Your task to perform on an android device: empty trash in the gmail app Image 0: 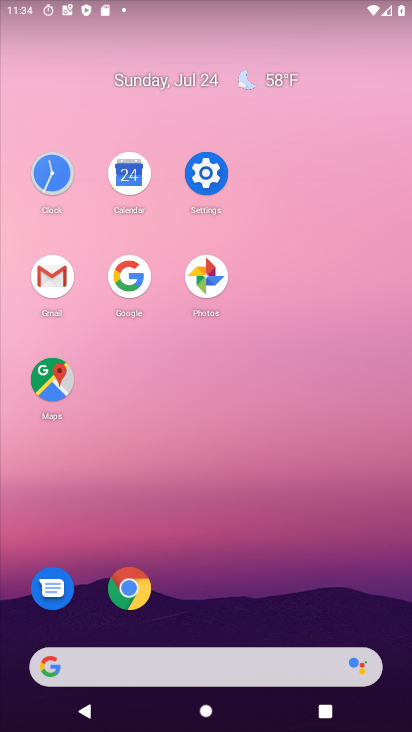
Step 0: click (38, 279)
Your task to perform on an android device: empty trash in the gmail app Image 1: 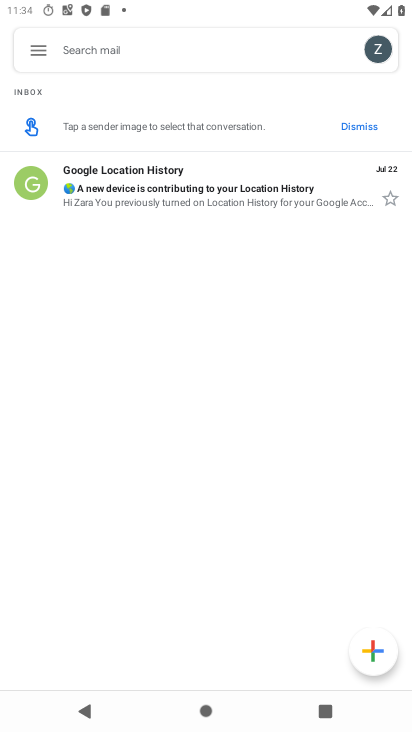
Step 1: click (33, 67)
Your task to perform on an android device: empty trash in the gmail app Image 2: 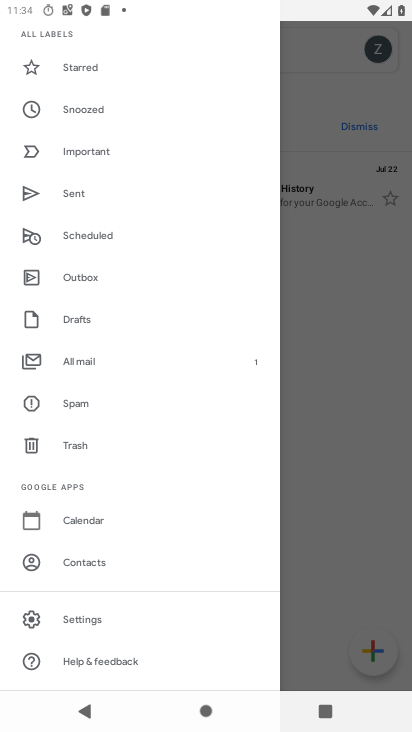
Step 2: click (122, 440)
Your task to perform on an android device: empty trash in the gmail app Image 3: 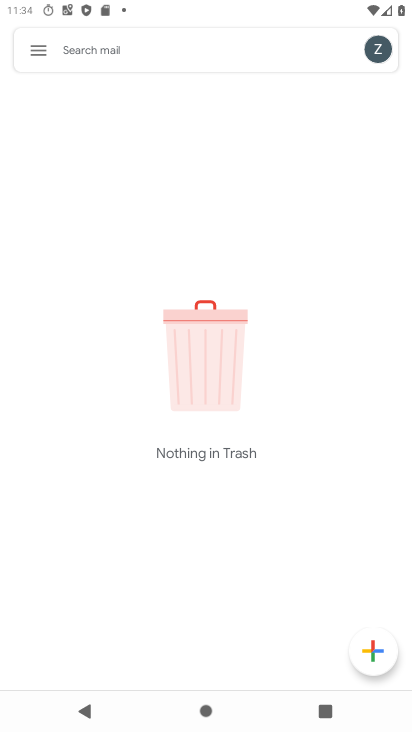
Step 3: task complete